Your task to perform on an android device: open chrome privacy settings Image 0: 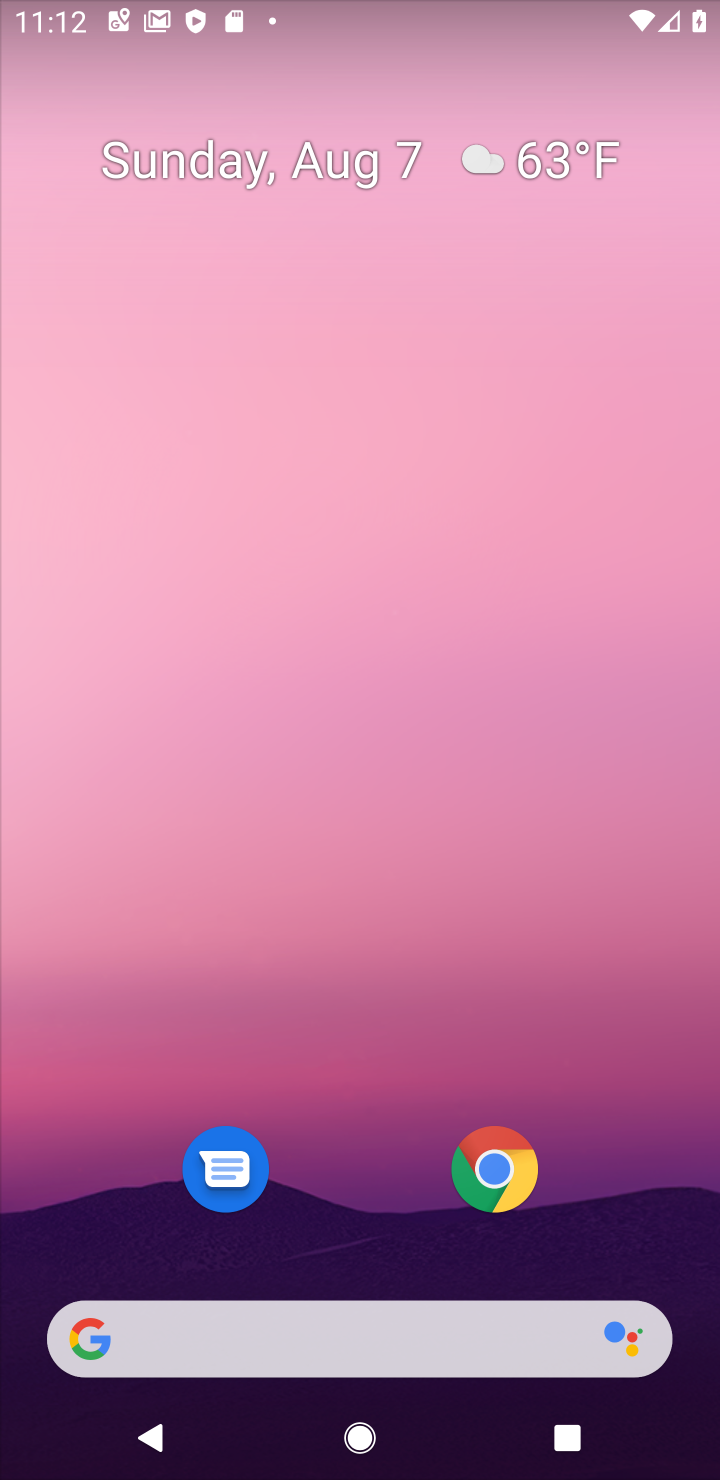
Step 0: drag from (336, 1282) to (246, 2)
Your task to perform on an android device: open chrome privacy settings Image 1: 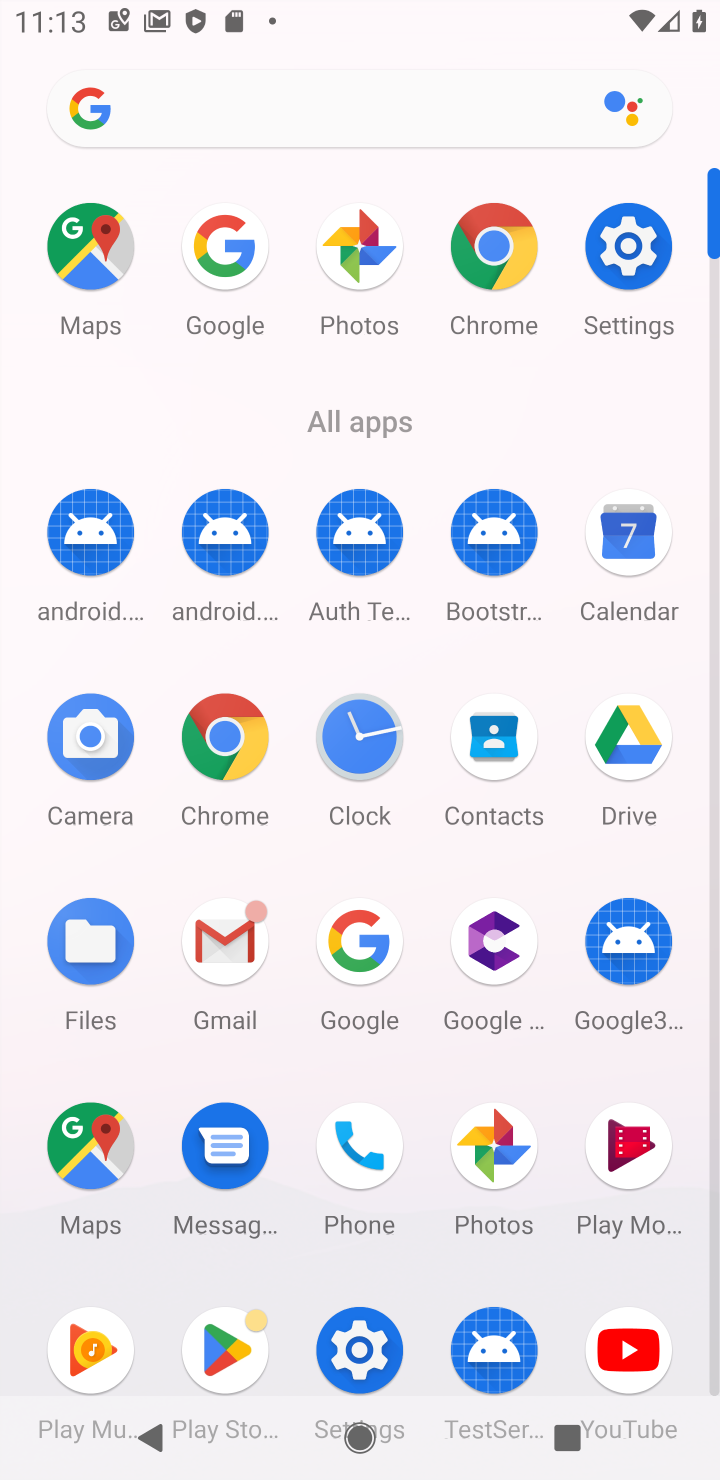
Step 1: click (361, 1357)
Your task to perform on an android device: open chrome privacy settings Image 2: 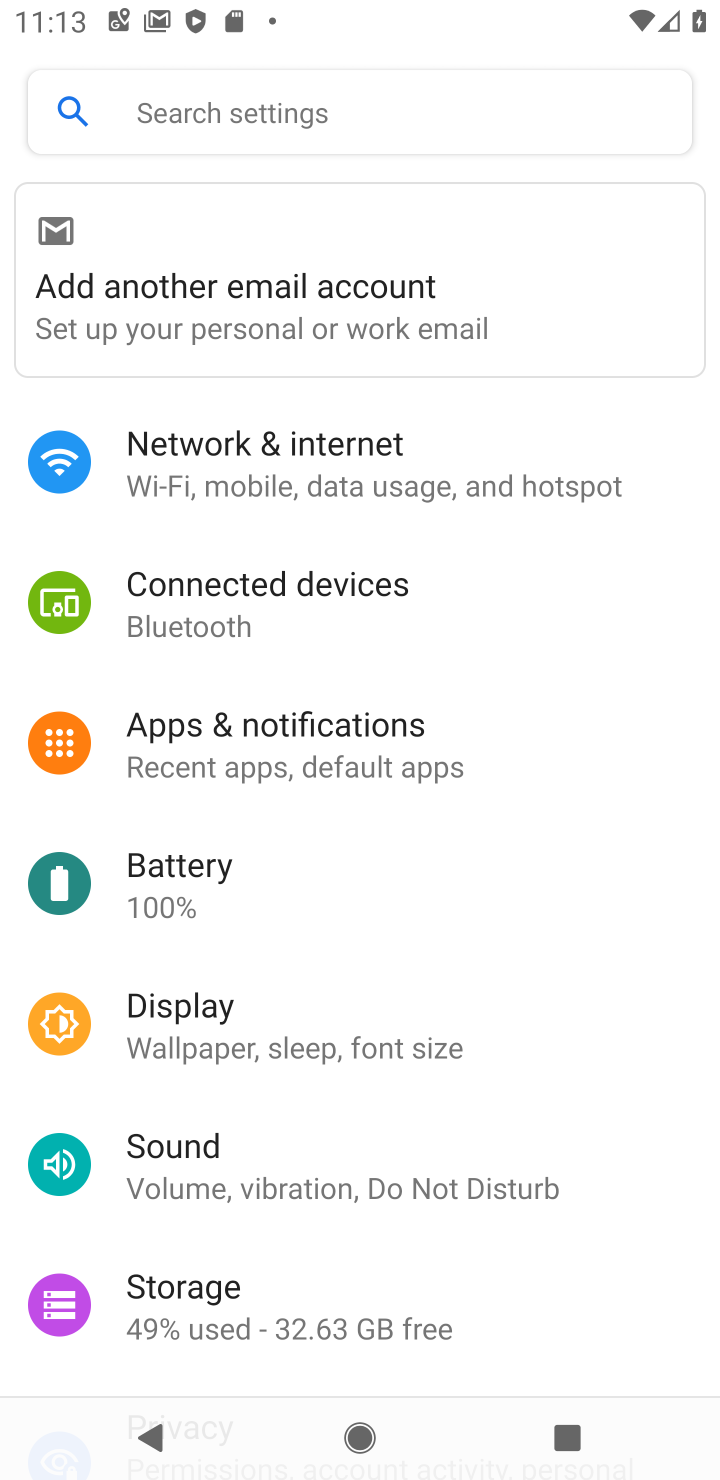
Step 2: press home button
Your task to perform on an android device: open chrome privacy settings Image 3: 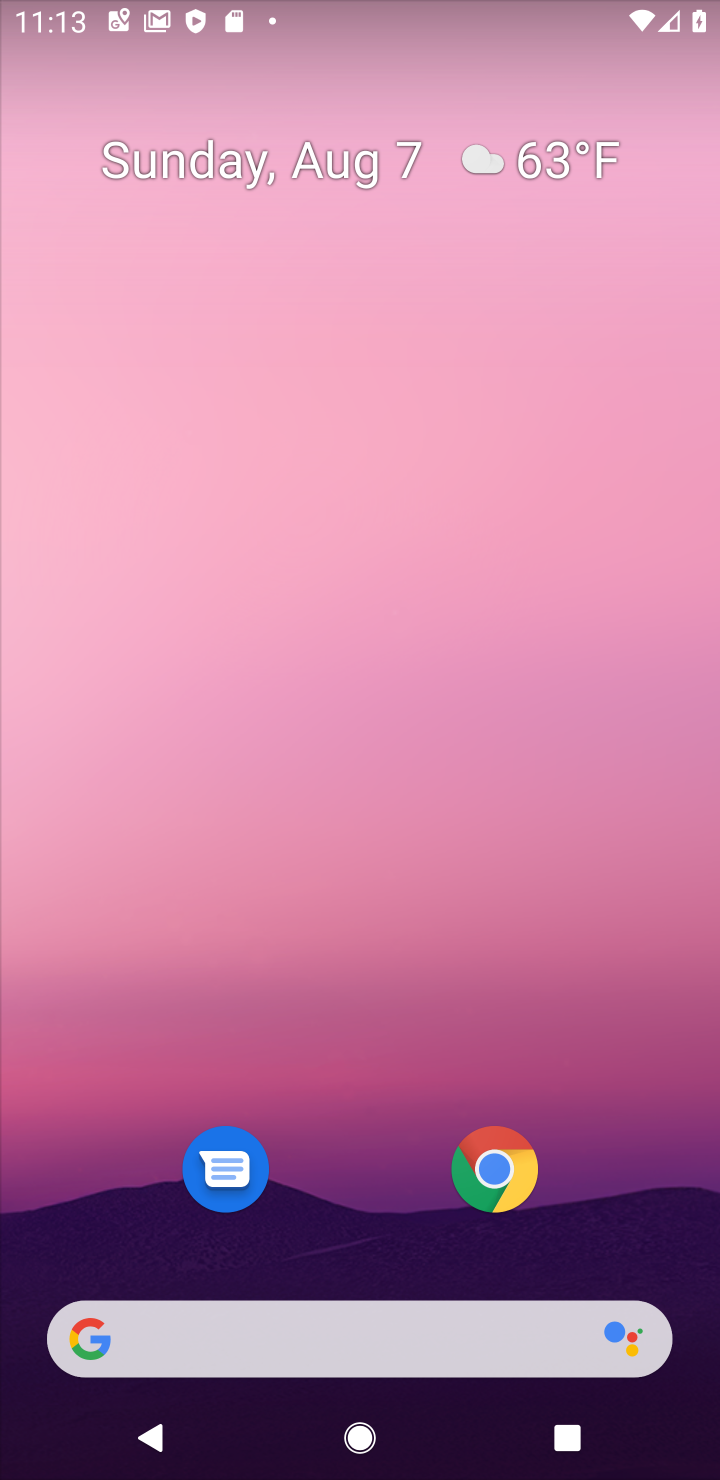
Step 3: click (501, 1139)
Your task to perform on an android device: open chrome privacy settings Image 4: 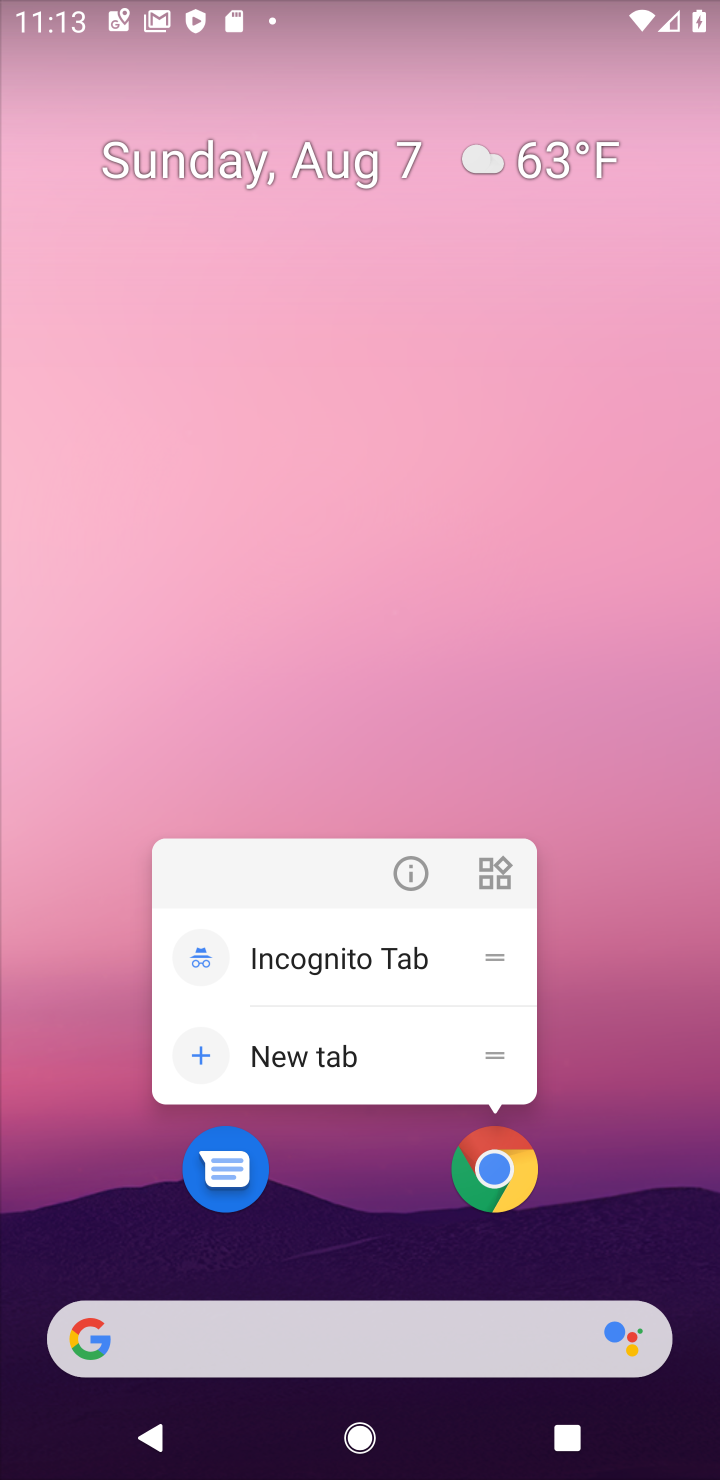
Step 4: click (495, 1211)
Your task to perform on an android device: open chrome privacy settings Image 5: 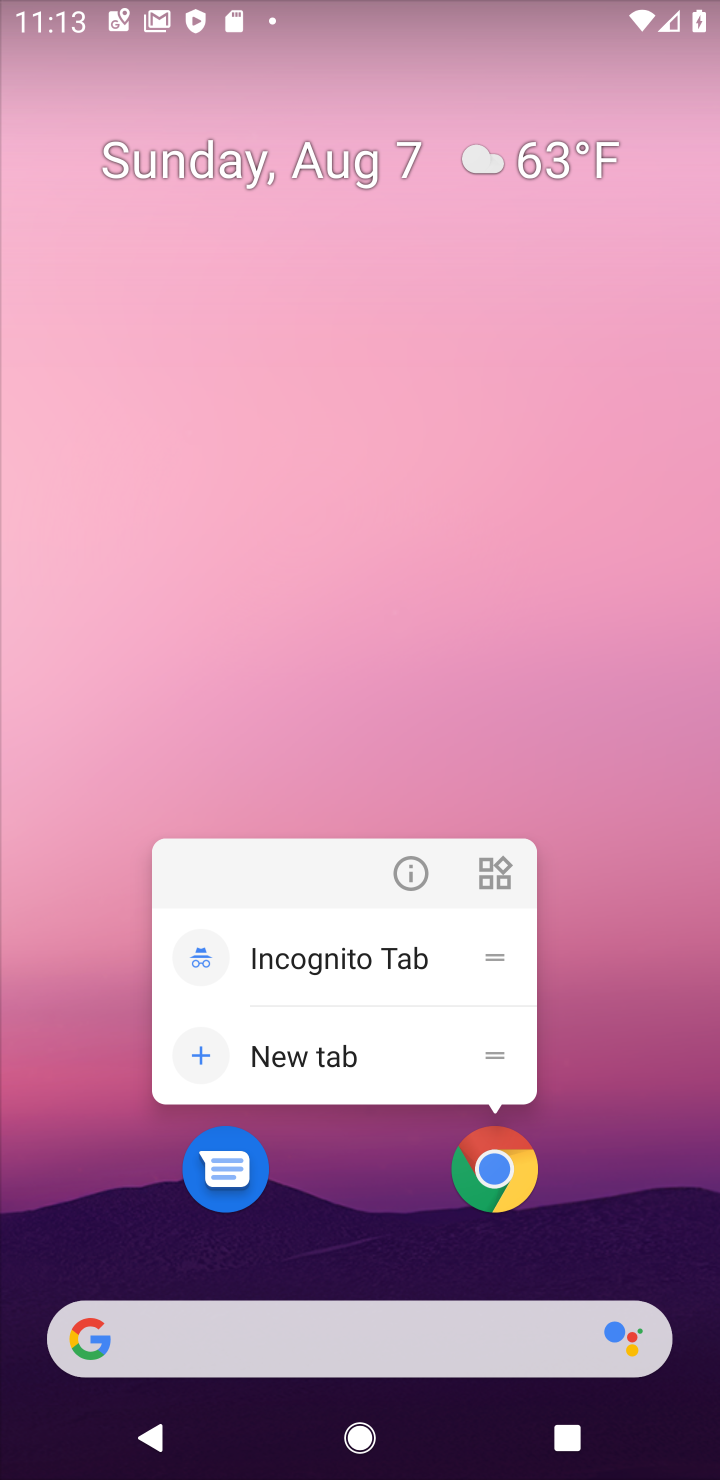
Step 5: click (491, 1213)
Your task to perform on an android device: open chrome privacy settings Image 6: 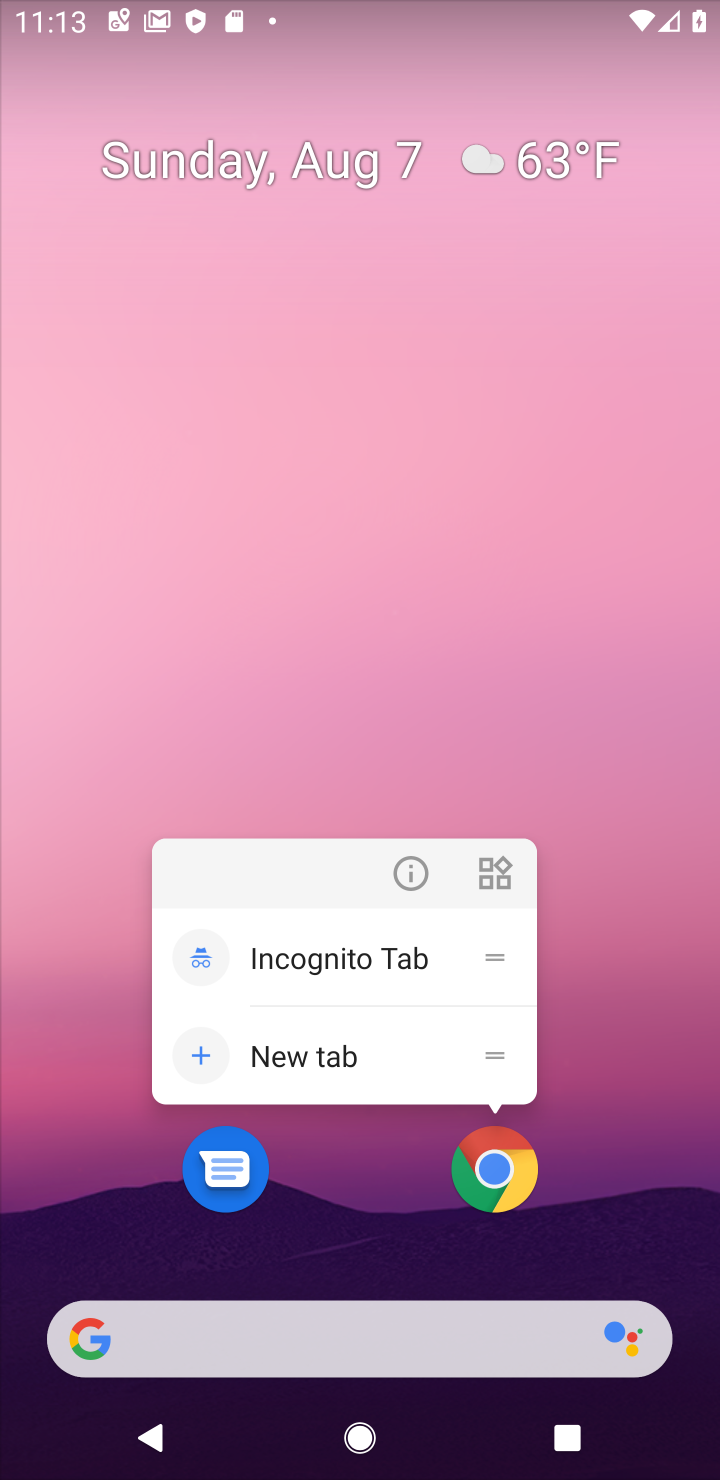
Step 6: click (508, 1192)
Your task to perform on an android device: open chrome privacy settings Image 7: 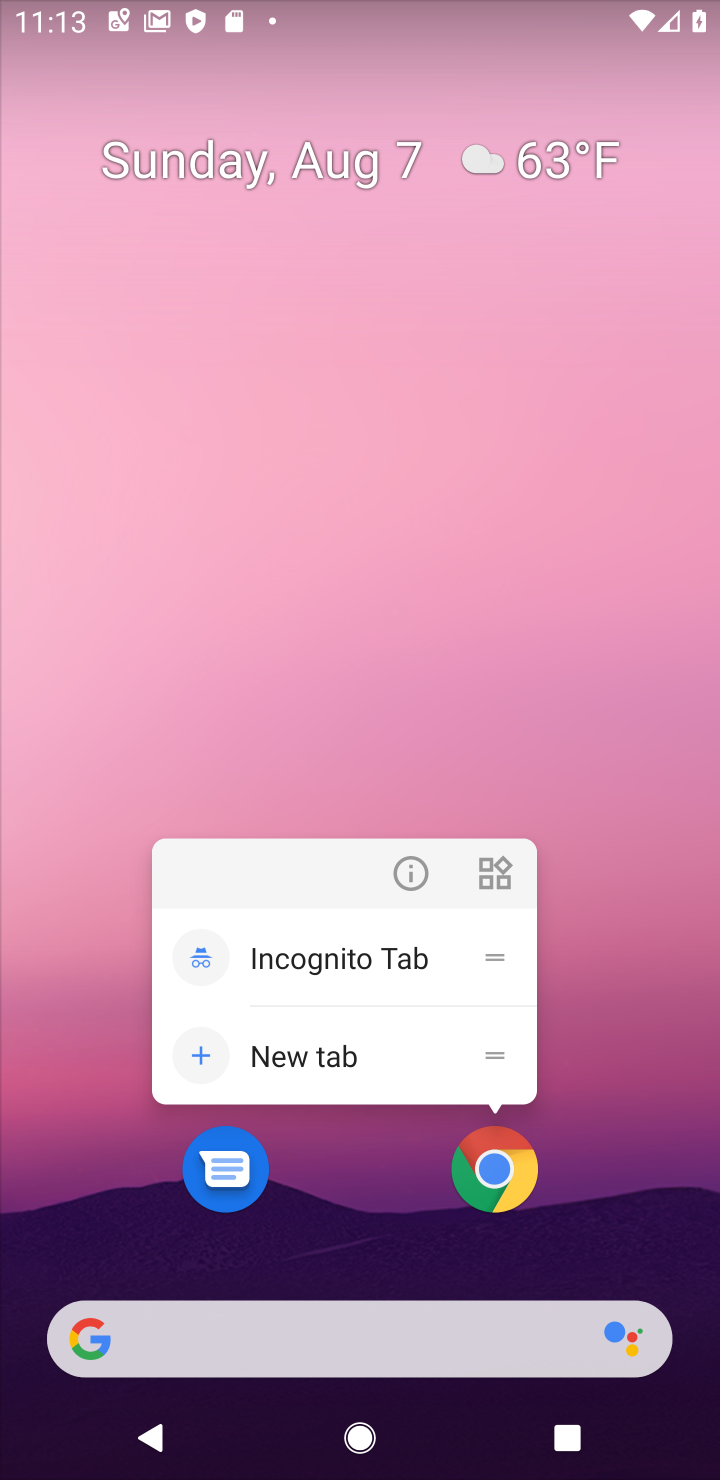
Step 7: click (508, 1192)
Your task to perform on an android device: open chrome privacy settings Image 8: 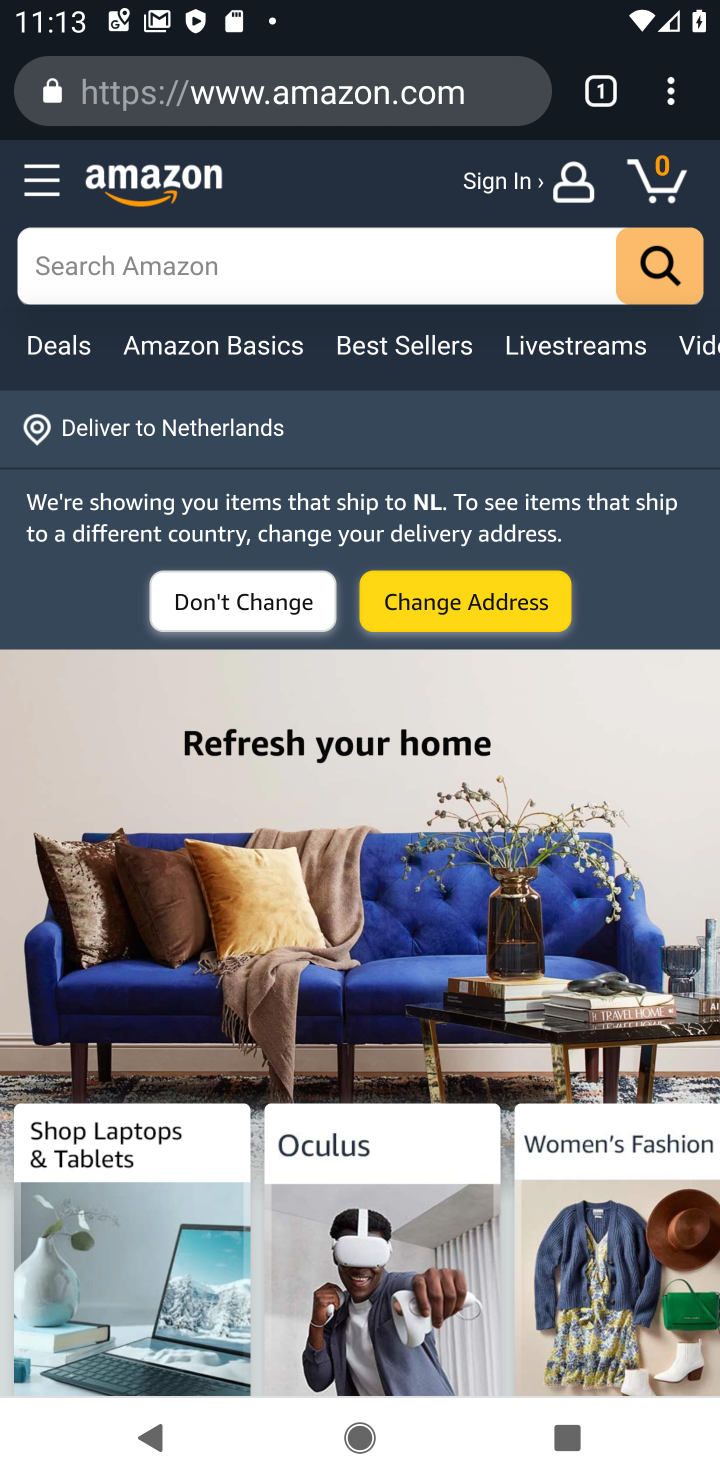
Step 8: drag from (667, 98) to (350, 1221)
Your task to perform on an android device: open chrome privacy settings Image 9: 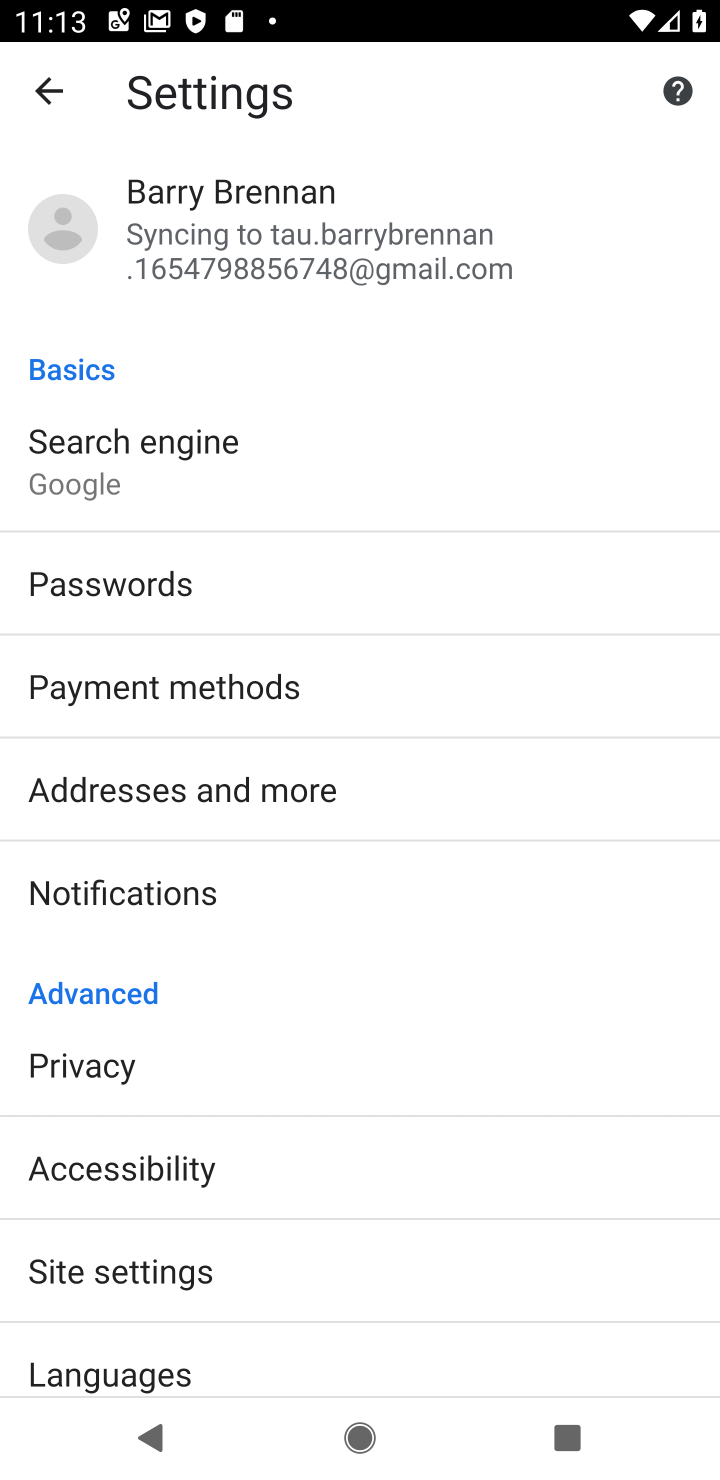
Step 9: click (102, 1080)
Your task to perform on an android device: open chrome privacy settings Image 10: 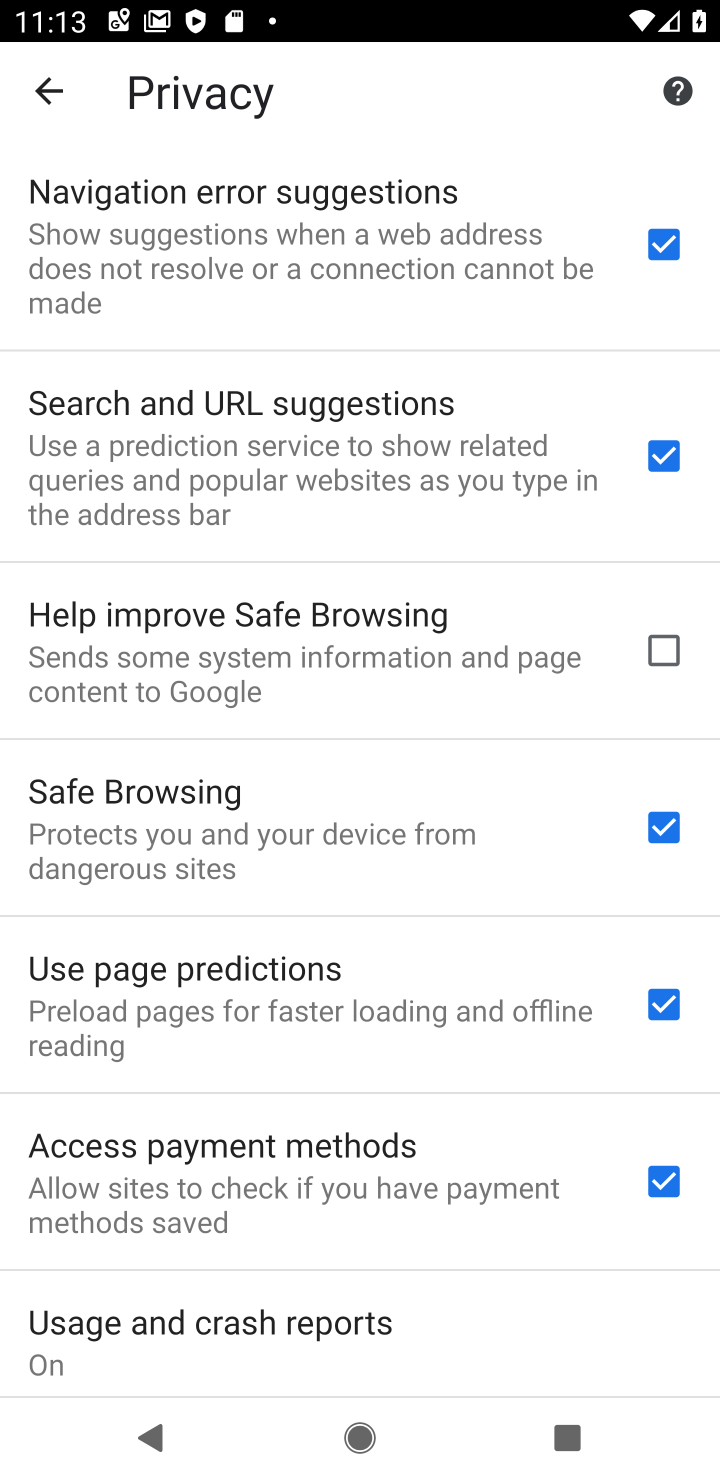
Step 10: task complete